Your task to perform on an android device: Show me popular games on the Play Store Image 0: 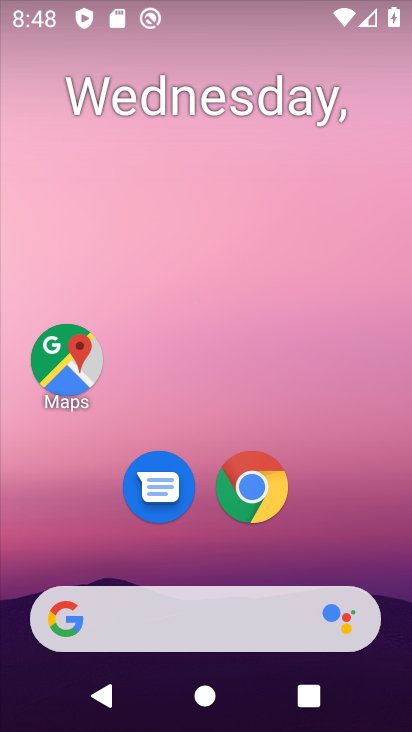
Step 0: drag from (349, 523) to (284, 35)
Your task to perform on an android device: Show me popular games on the Play Store Image 1: 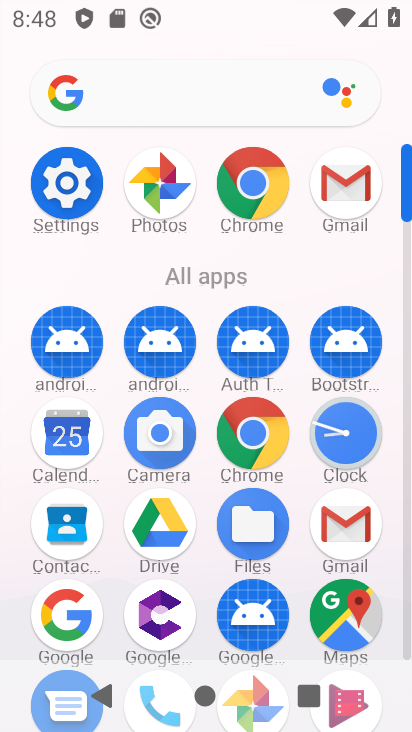
Step 1: click (407, 648)
Your task to perform on an android device: Show me popular games on the Play Store Image 2: 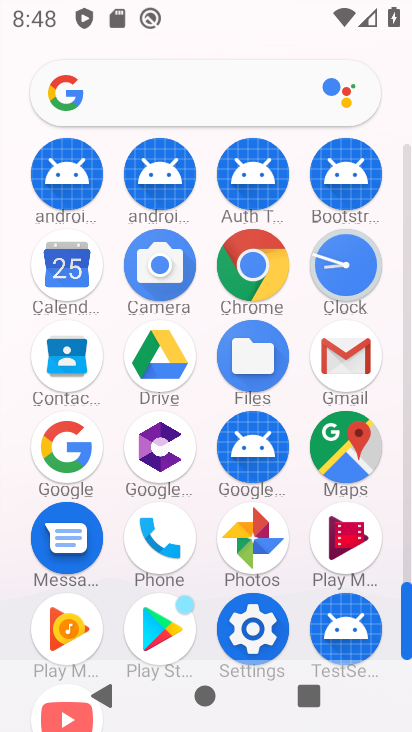
Step 2: click (174, 622)
Your task to perform on an android device: Show me popular games on the Play Store Image 3: 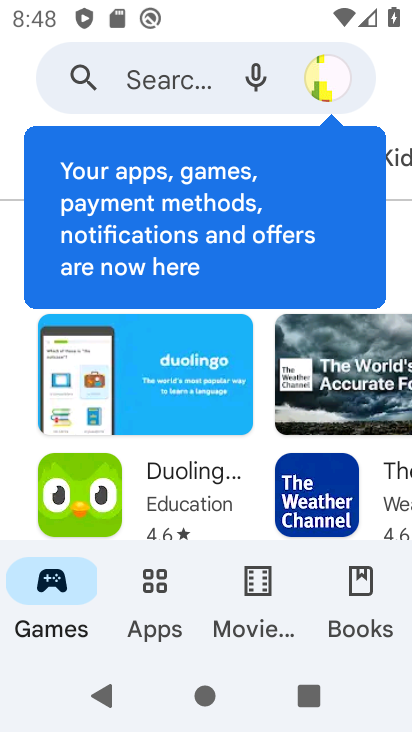
Step 3: drag from (257, 507) to (242, 474)
Your task to perform on an android device: Show me popular games on the Play Store Image 4: 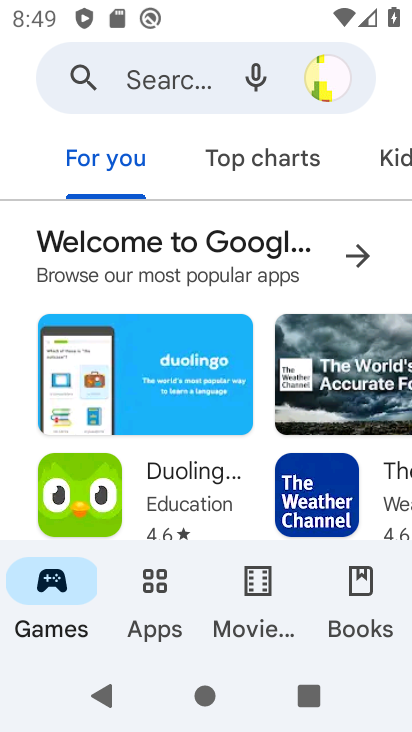
Step 4: click (249, 257)
Your task to perform on an android device: Show me popular games on the Play Store Image 5: 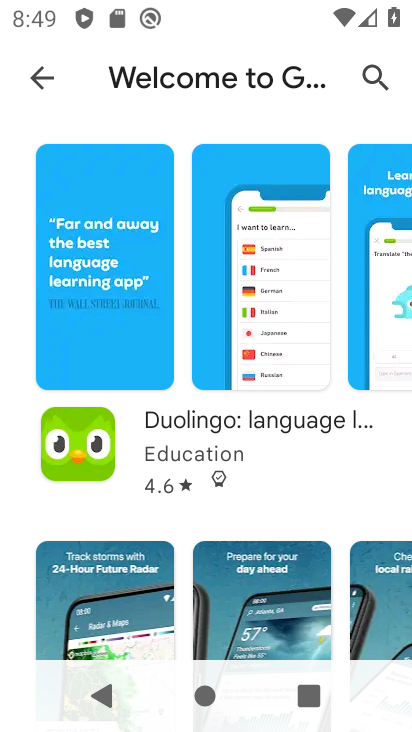
Step 5: task complete